Your task to perform on an android device: turn pop-ups off in chrome Image 0: 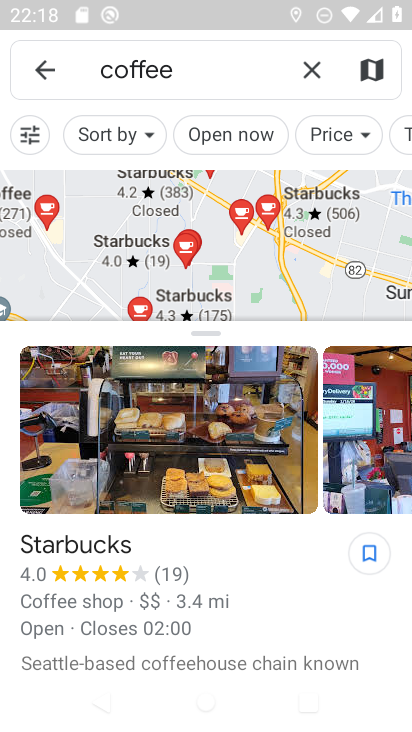
Step 0: press home button
Your task to perform on an android device: turn pop-ups off in chrome Image 1: 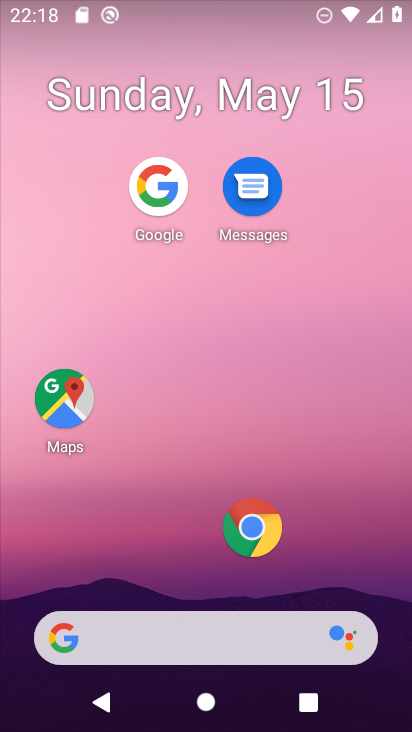
Step 1: click (255, 534)
Your task to perform on an android device: turn pop-ups off in chrome Image 2: 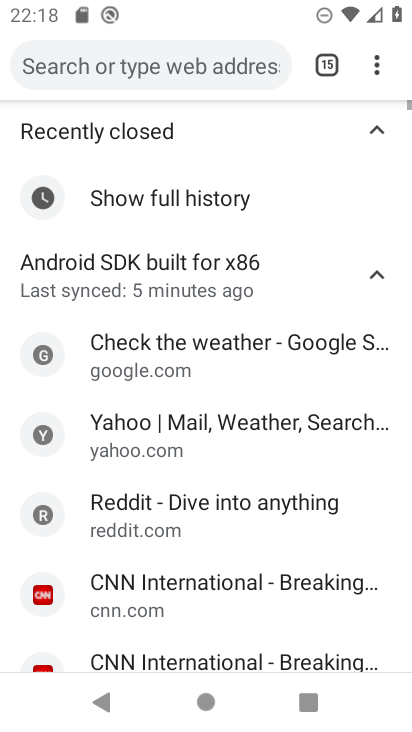
Step 2: drag from (374, 67) to (179, 557)
Your task to perform on an android device: turn pop-ups off in chrome Image 3: 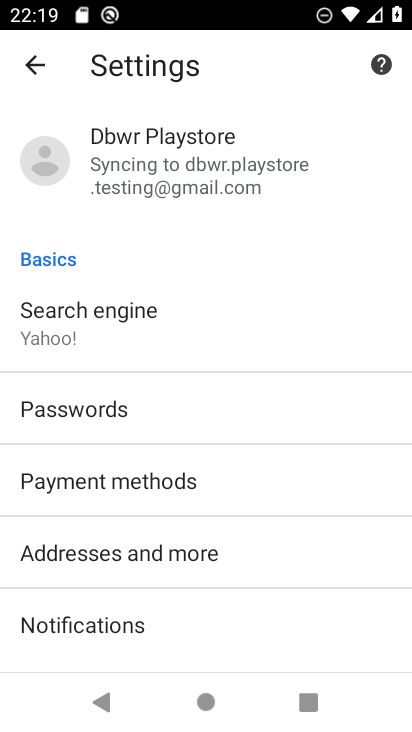
Step 3: drag from (182, 603) to (309, 223)
Your task to perform on an android device: turn pop-ups off in chrome Image 4: 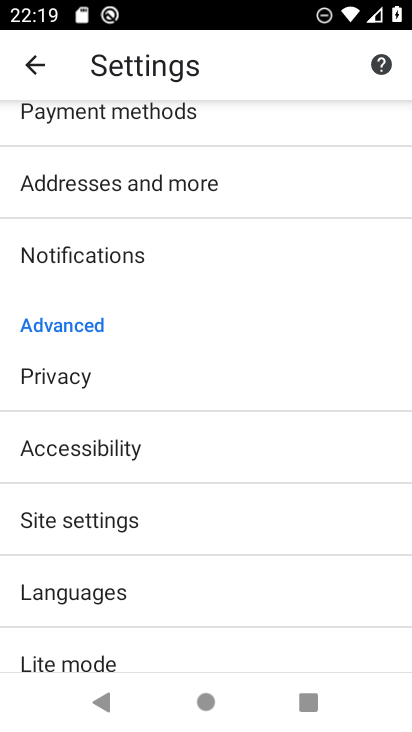
Step 4: click (102, 521)
Your task to perform on an android device: turn pop-ups off in chrome Image 5: 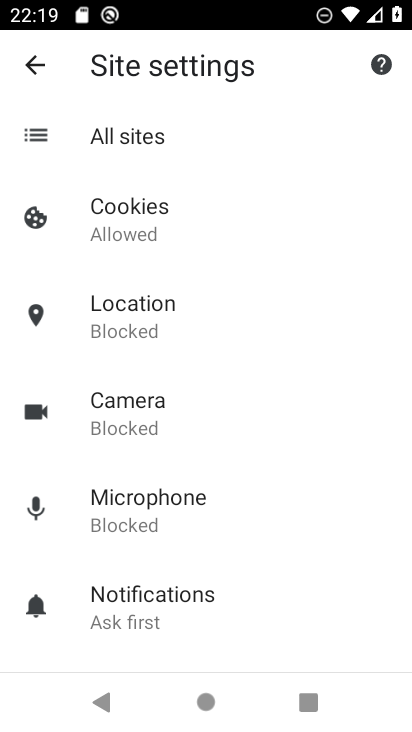
Step 5: drag from (223, 551) to (292, 191)
Your task to perform on an android device: turn pop-ups off in chrome Image 6: 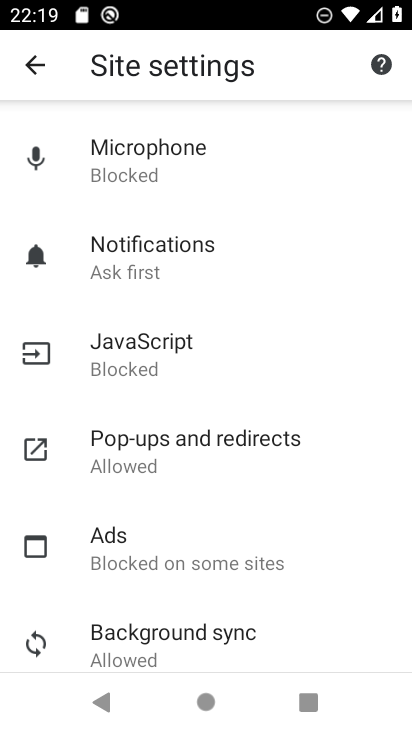
Step 6: click (162, 439)
Your task to perform on an android device: turn pop-ups off in chrome Image 7: 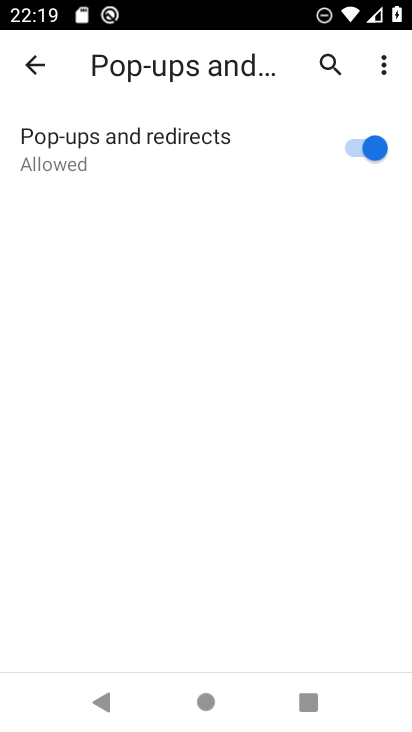
Step 7: click (357, 143)
Your task to perform on an android device: turn pop-ups off in chrome Image 8: 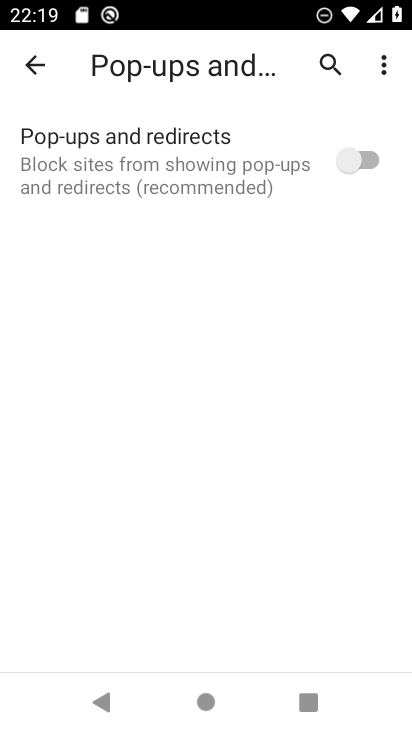
Step 8: task complete